Your task to perform on an android device: toggle notifications settings in the gmail app Image 0: 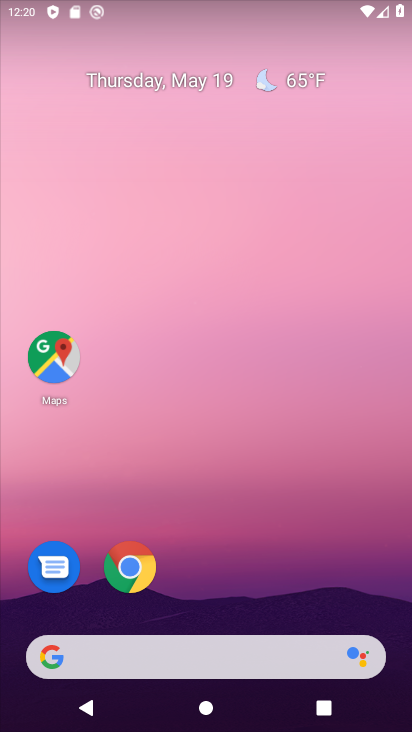
Step 0: drag from (248, 585) to (236, 165)
Your task to perform on an android device: toggle notifications settings in the gmail app Image 1: 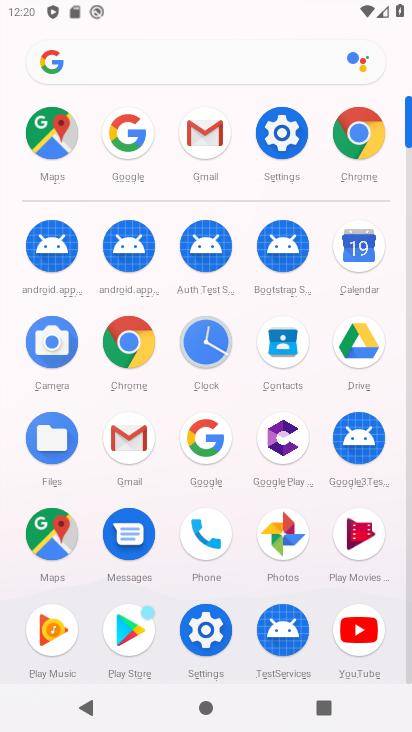
Step 1: click (213, 143)
Your task to perform on an android device: toggle notifications settings in the gmail app Image 2: 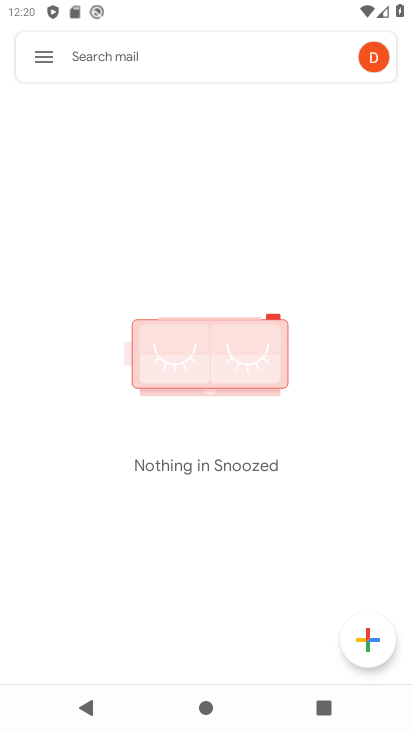
Step 2: click (46, 56)
Your task to perform on an android device: toggle notifications settings in the gmail app Image 3: 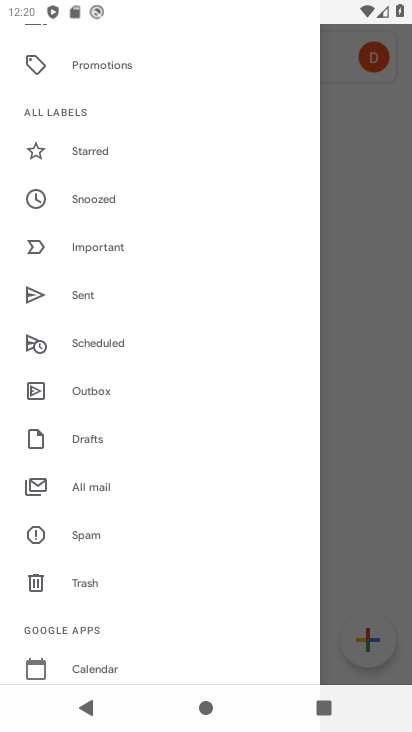
Step 3: drag from (173, 640) to (183, 324)
Your task to perform on an android device: toggle notifications settings in the gmail app Image 4: 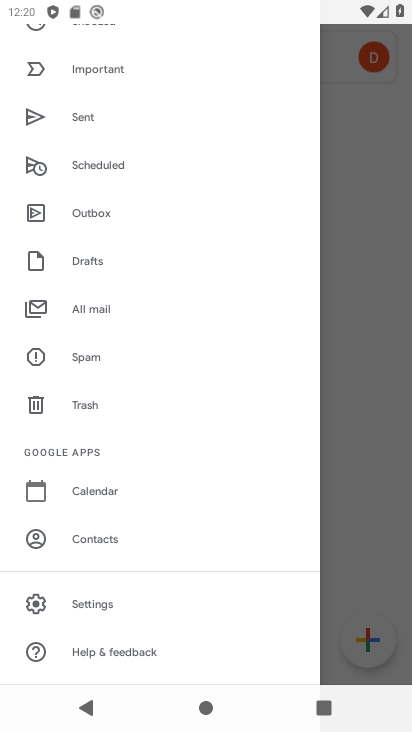
Step 4: click (97, 598)
Your task to perform on an android device: toggle notifications settings in the gmail app Image 5: 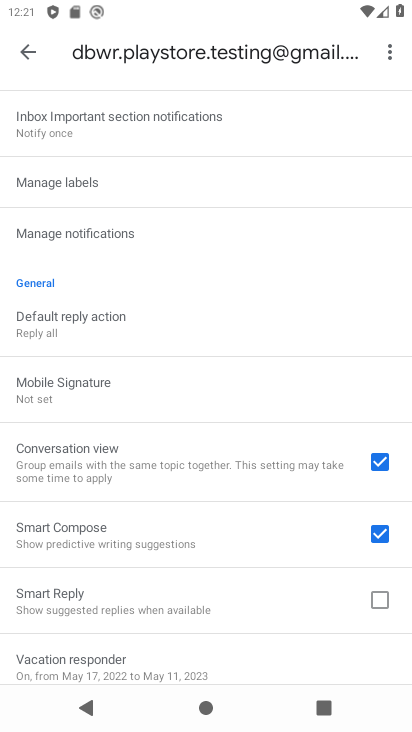
Step 5: click (110, 231)
Your task to perform on an android device: toggle notifications settings in the gmail app Image 6: 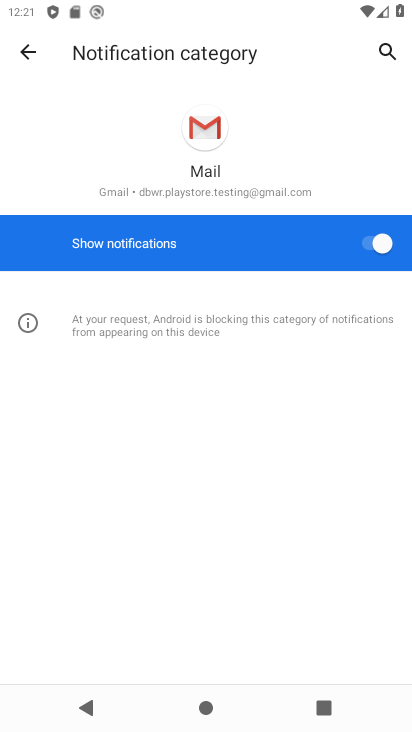
Step 6: click (368, 239)
Your task to perform on an android device: toggle notifications settings in the gmail app Image 7: 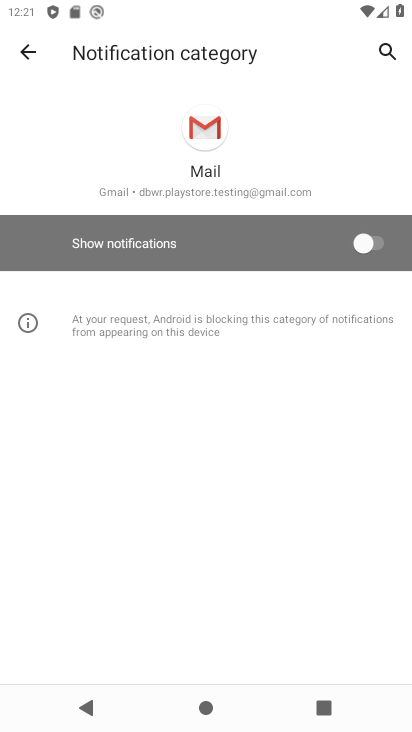
Step 7: task complete